Your task to perform on an android device: refresh tabs in the chrome app Image 0: 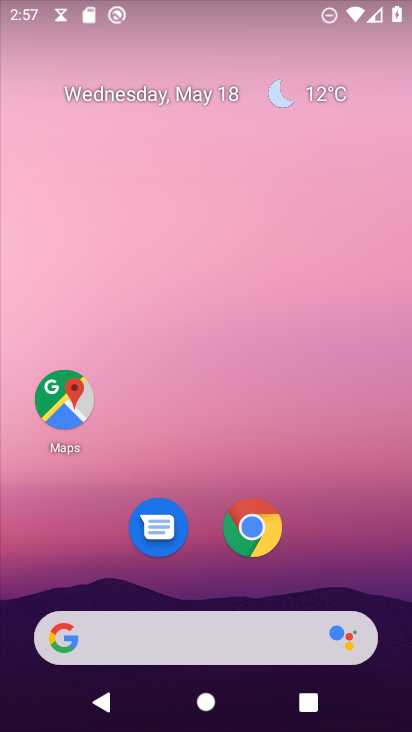
Step 0: click (261, 527)
Your task to perform on an android device: refresh tabs in the chrome app Image 1: 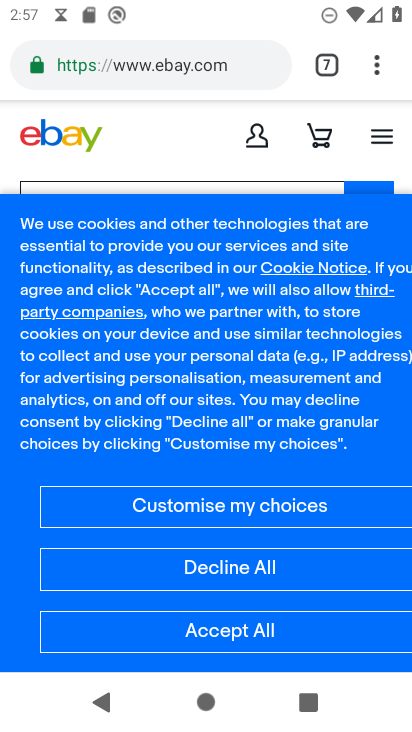
Step 1: click (374, 66)
Your task to perform on an android device: refresh tabs in the chrome app Image 2: 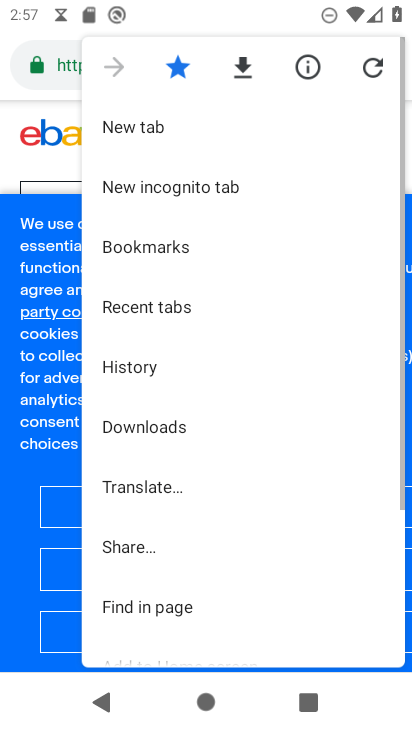
Step 2: click (374, 66)
Your task to perform on an android device: refresh tabs in the chrome app Image 3: 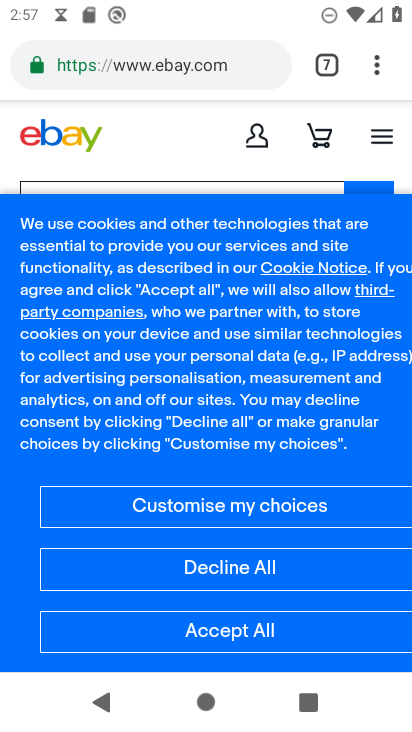
Step 3: task complete